Your task to perform on an android device: turn off smart reply in the gmail app Image 0: 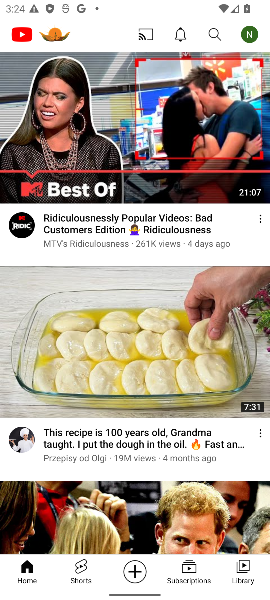
Step 0: press back button
Your task to perform on an android device: turn off smart reply in the gmail app Image 1: 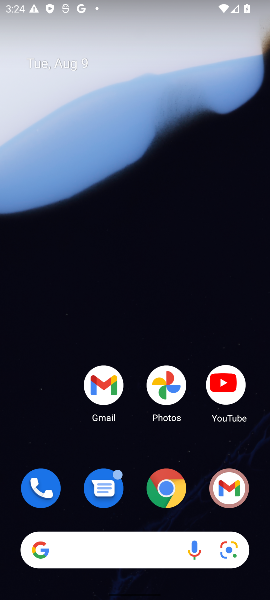
Step 1: press home button
Your task to perform on an android device: turn off smart reply in the gmail app Image 2: 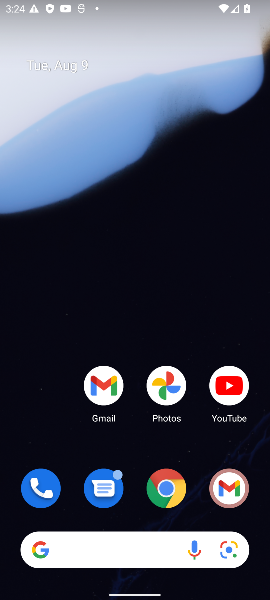
Step 2: click (113, 381)
Your task to perform on an android device: turn off smart reply in the gmail app Image 3: 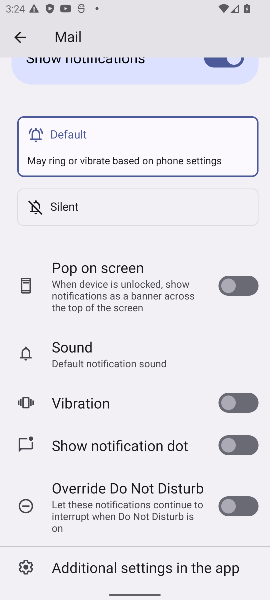
Step 3: click (23, 39)
Your task to perform on an android device: turn off smart reply in the gmail app Image 4: 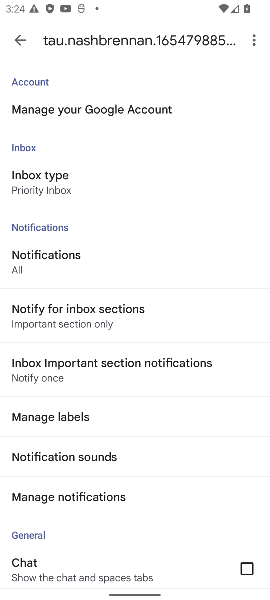
Step 4: drag from (124, 572) to (131, 269)
Your task to perform on an android device: turn off smart reply in the gmail app Image 5: 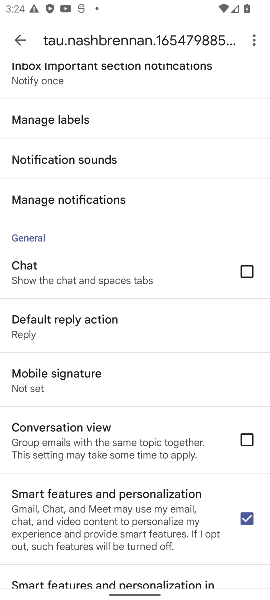
Step 5: drag from (179, 485) to (163, 273)
Your task to perform on an android device: turn off smart reply in the gmail app Image 6: 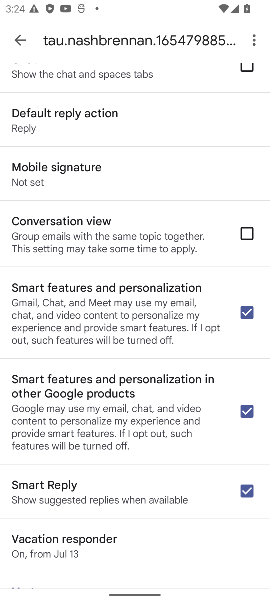
Step 6: click (246, 501)
Your task to perform on an android device: turn off smart reply in the gmail app Image 7: 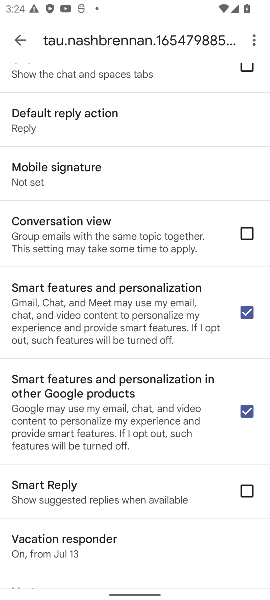
Step 7: task complete